Your task to perform on an android device: Open calendar and show me the fourth week of next month Image 0: 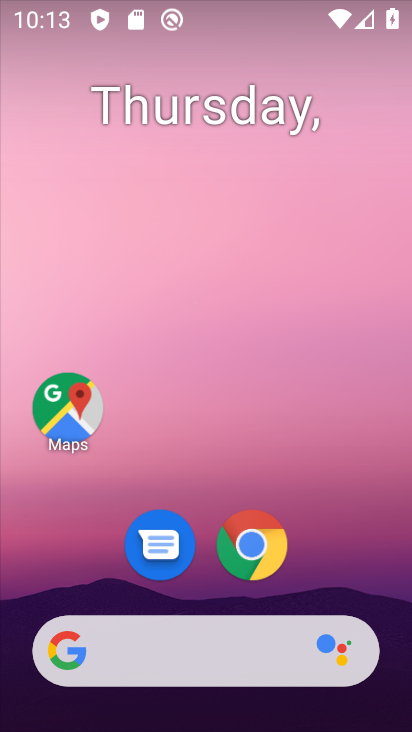
Step 0: drag from (335, 567) to (292, 154)
Your task to perform on an android device: Open calendar and show me the fourth week of next month Image 1: 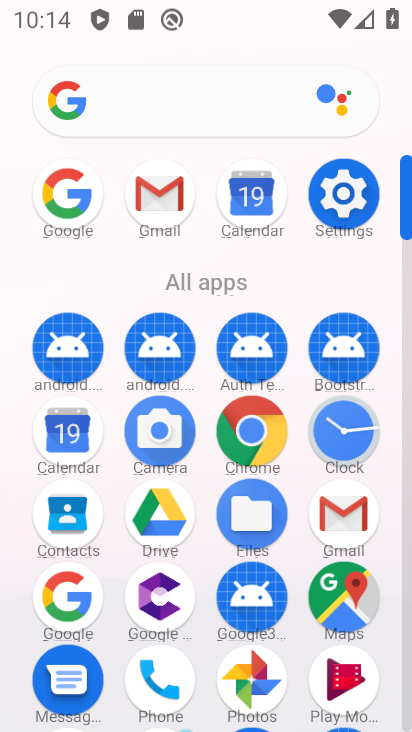
Step 1: click (68, 433)
Your task to perform on an android device: Open calendar and show me the fourth week of next month Image 2: 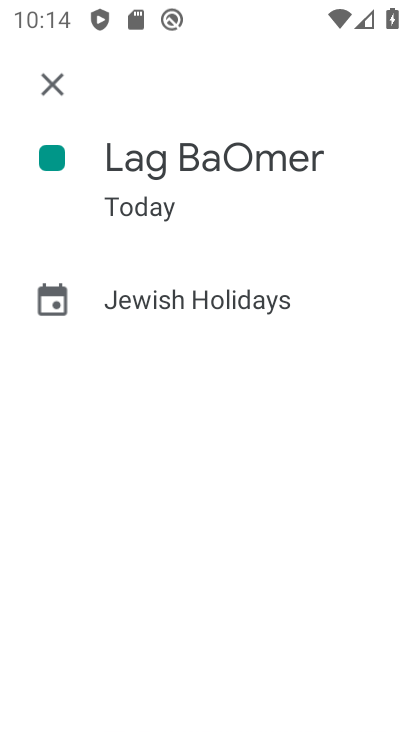
Step 2: click (59, 78)
Your task to perform on an android device: Open calendar and show me the fourth week of next month Image 3: 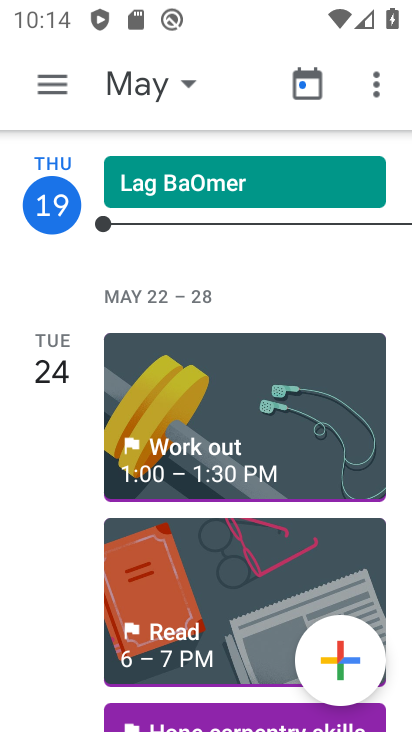
Step 3: click (307, 81)
Your task to perform on an android device: Open calendar and show me the fourth week of next month Image 4: 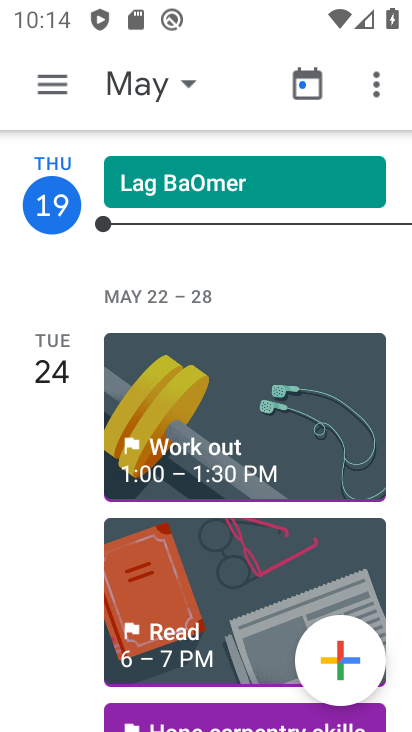
Step 4: click (177, 80)
Your task to perform on an android device: Open calendar and show me the fourth week of next month Image 5: 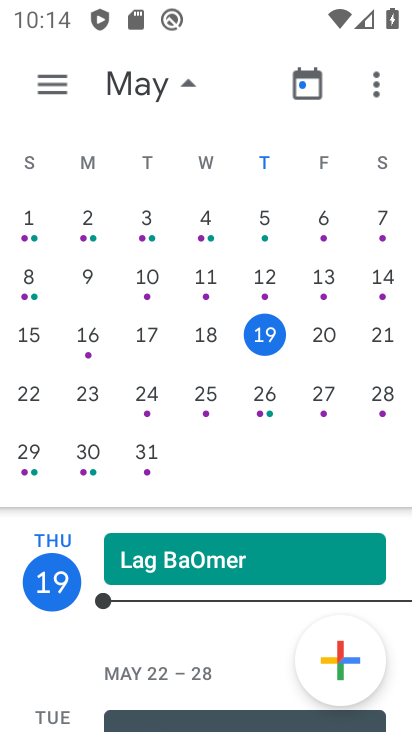
Step 5: drag from (369, 357) to (0, 317)
Your task to perform on an android device: Open calendar and show me the fourth week of next month Image 6: 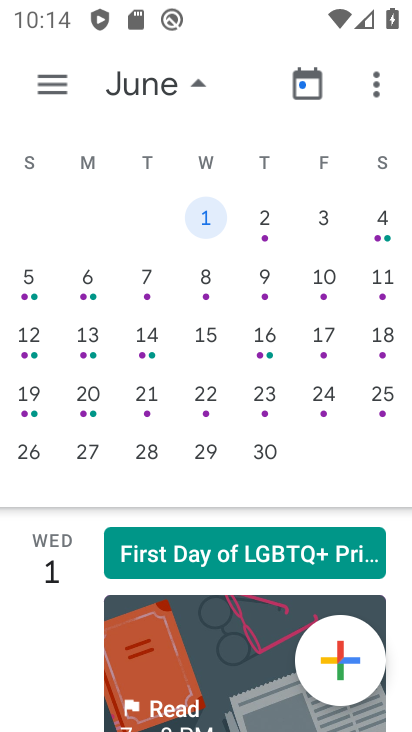
Step 6: click (85, 449)
Your task to perform on an android device: Open calendar and show me the fourth week of next month Image 7: 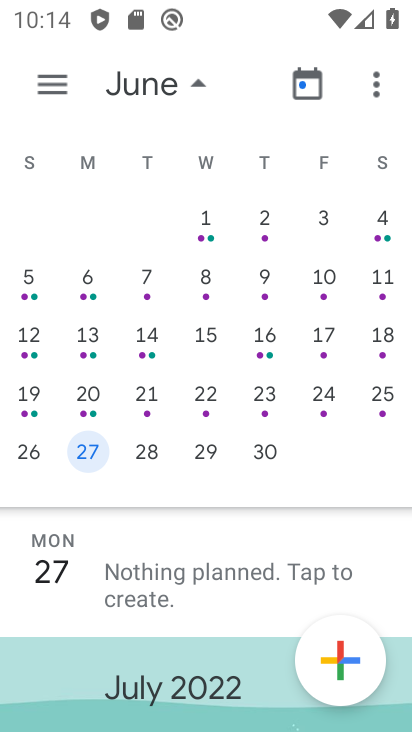
Step 7: click (66, 76)
Your task to perform on an android device: Open calendar and show me the fourth week of next month Image 8: 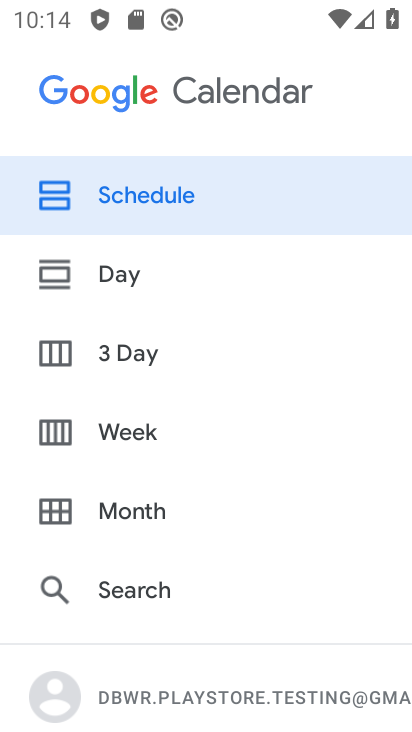
Step 8: click (106, 431)
Your task to perform on an android device: Open calendar and show me the fourth week of next month Image 9: 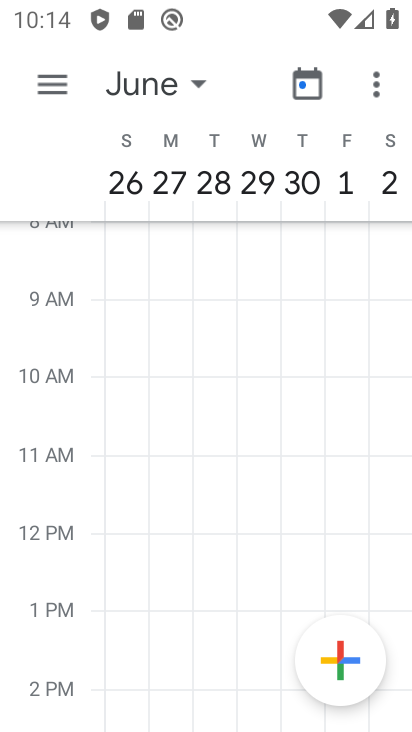
Step 9: task complete